Your task to perform on an android device: turn on javascript in the chrome app Image 0: 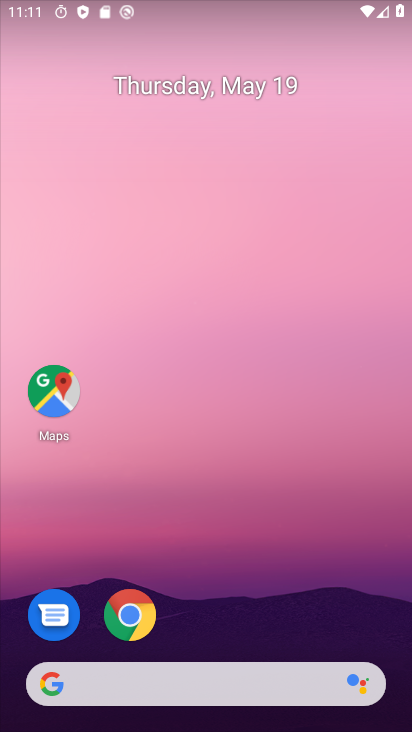
Step 0: click (148, 628)
Your task to perform on an android device: turn on javascript in the chrome app Image 1: 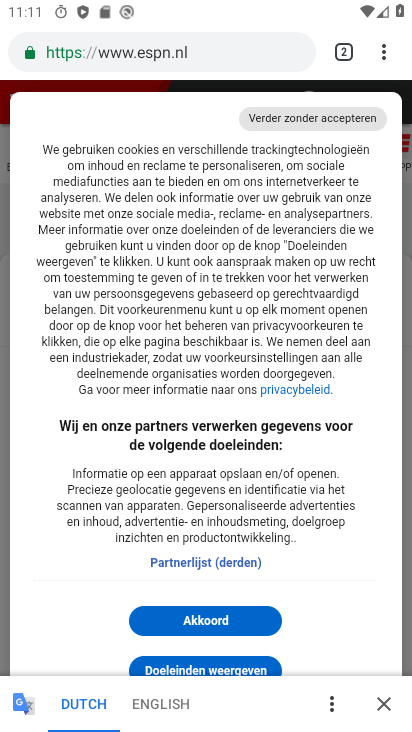
Step 1: click (389, 57)
Your task to perform on an android device: turn on javascript in the chrome app Image 2: 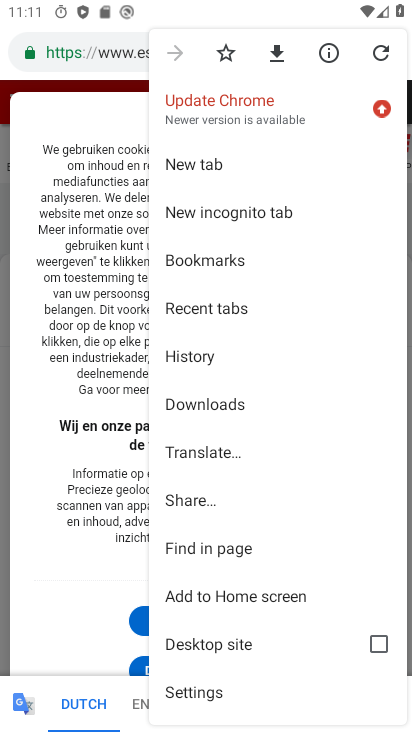
Step 2: click (219, 686)
Your task to perform on an android device: turn on javascript in the chrome app Image 3: 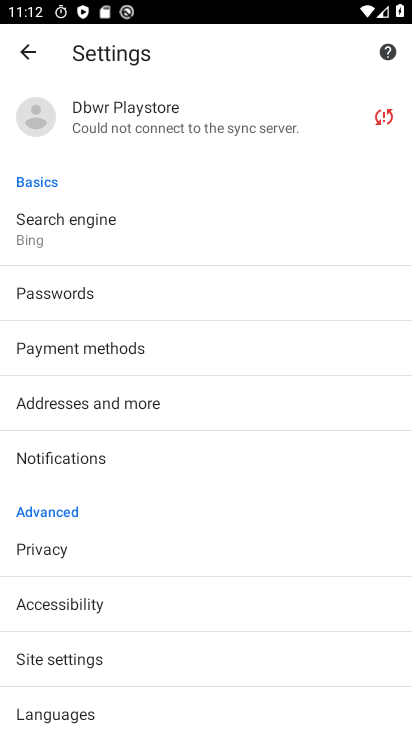
Step 3: click (75, 654)
Your task to perform on an android device: turn on javascript in the chrome app Image 4: 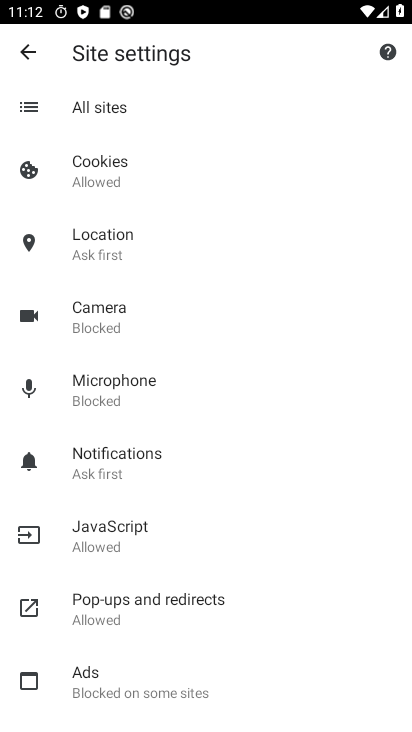
Step 4: click (165, 524)
Your task to perform on an android device: turn on javascript in the chrome app Image 5: 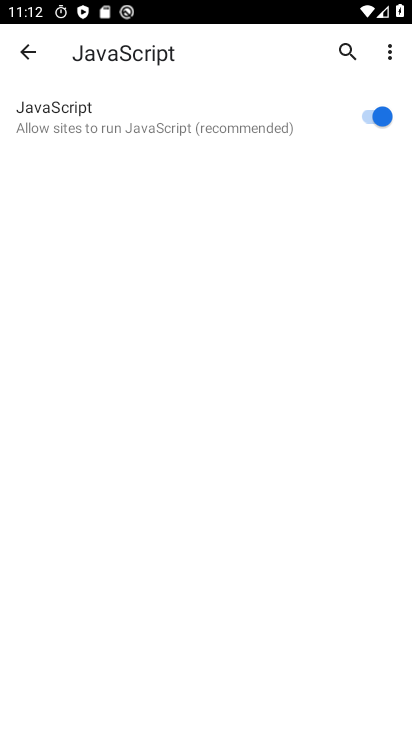
Step 5: task complete